Your task to perform on an android device: allow cookies in the chrome app Image 0: 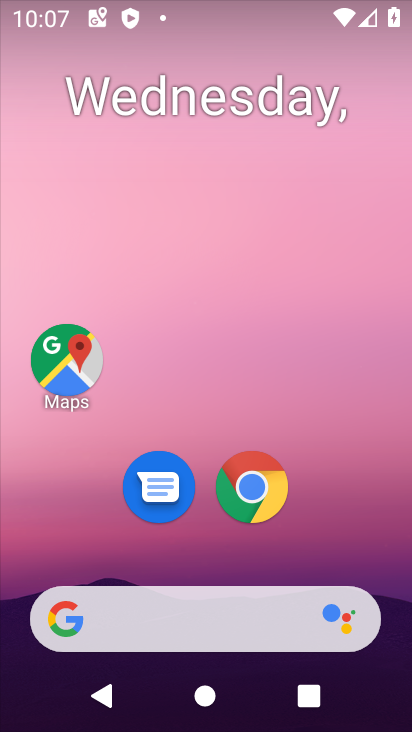
Step 0: click (244, 491)
Your task to perform on an android device: allow cookies in the chrome app Image 1: 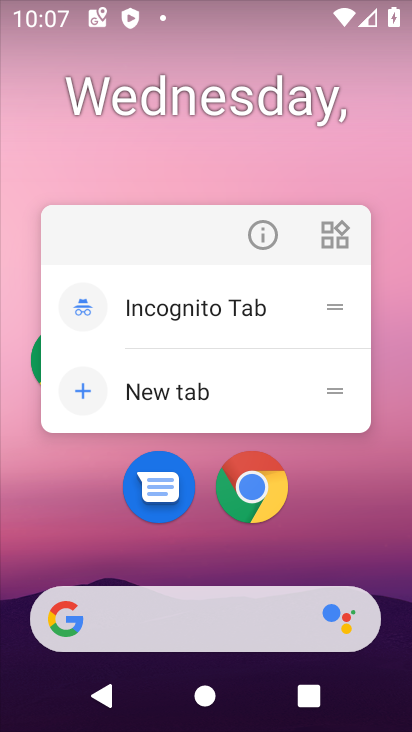
Step 1: click (233, 494)
Your task to perform on an android device: allow cookies in the chrome app Image 2: 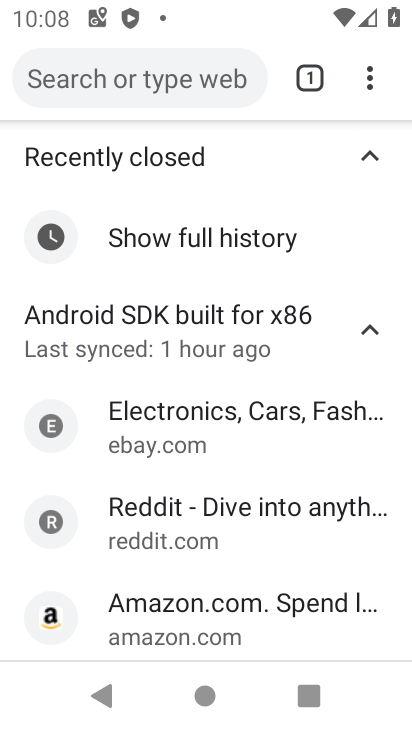
Step 2: click (371, 78)
Your task to perform on an android device: allow cookies in the chrome app Image 3: 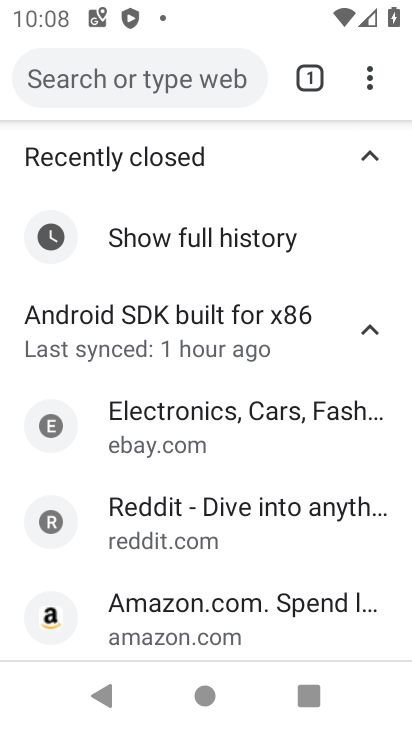
Step 3: click (367, 61)
Your task to perform on an android device: allow cookies in the chrome app Image 4: 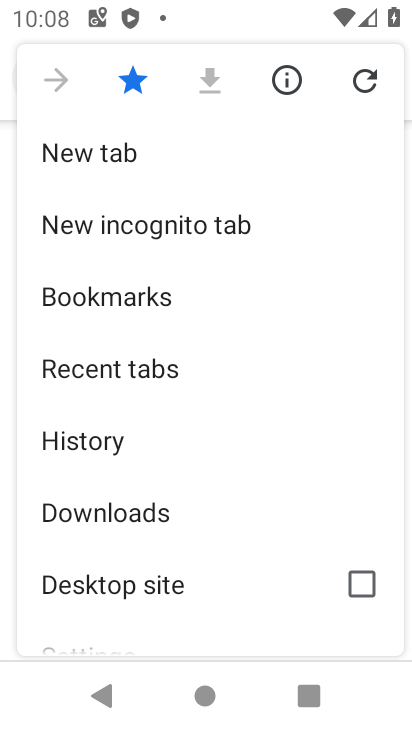
Step 4: click (136, 647)
Your task to perform on an android device: allow cookies in the chrome app Image 5: 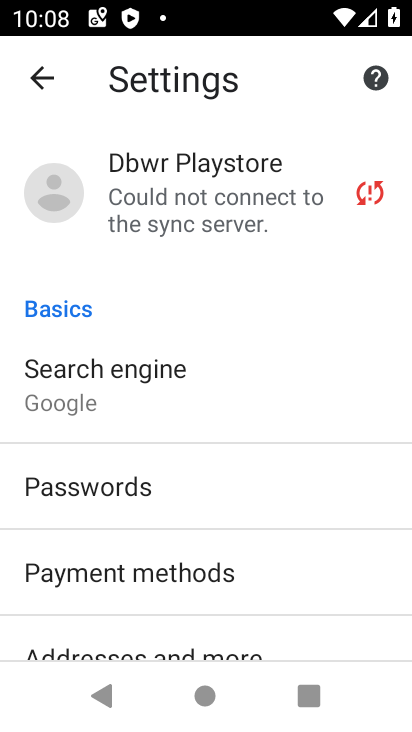
Step 5: drag from (233, 606) to (167, 7)
Your task to perform on an android device: allow cookies in the chrome app Image 6: 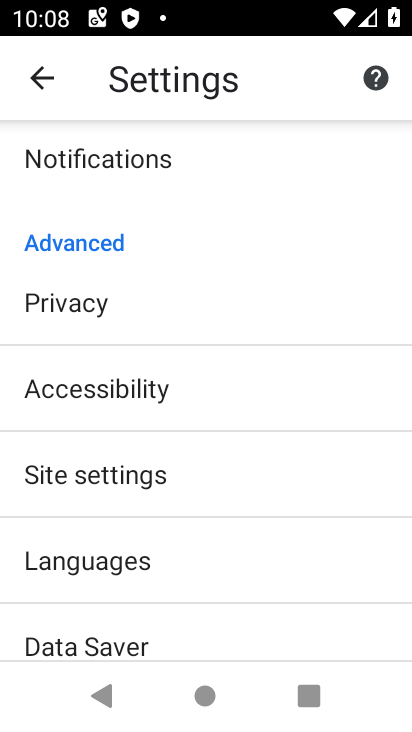
Step 6: click (141, 468)
Your task to perform on an android device: allow cookies in the chrome app Image 7: 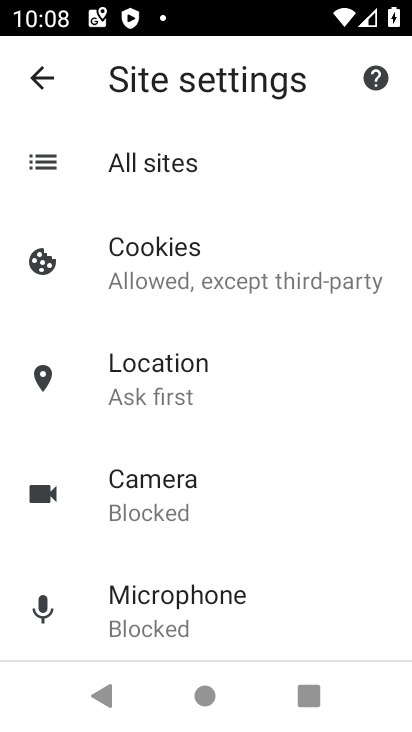
Step 7: click (161, 262)
Your task to perform on an android device: allow cookies in the chrome app Image 8: 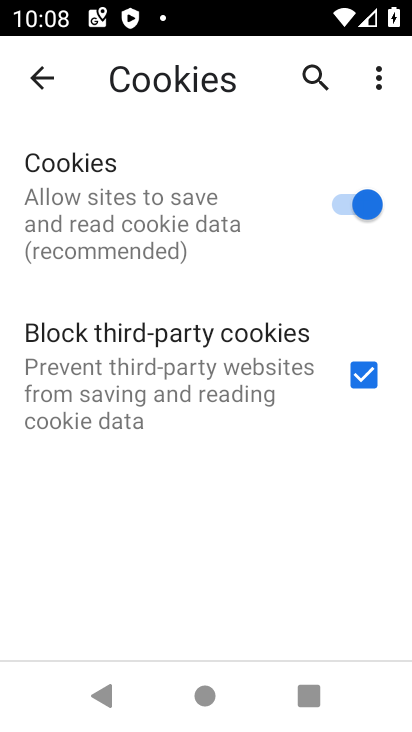
Step 8: task complete